Your task to perform on an android device: Open my contact list Image 0: 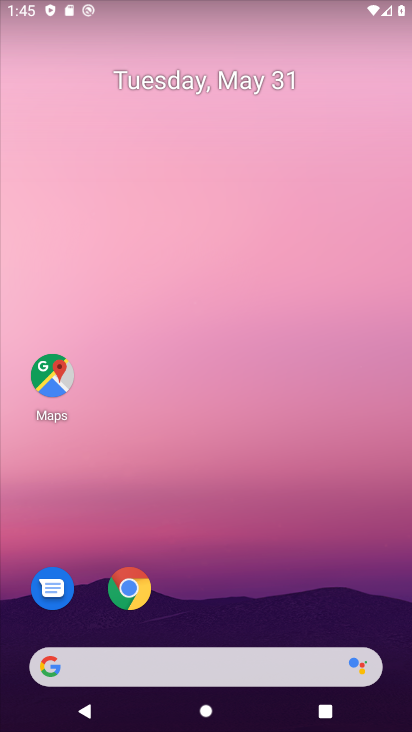
Step 0: drag from (159, 619) to (239, 176)
Your task to perform on an android device: Open my contact list Image 1: 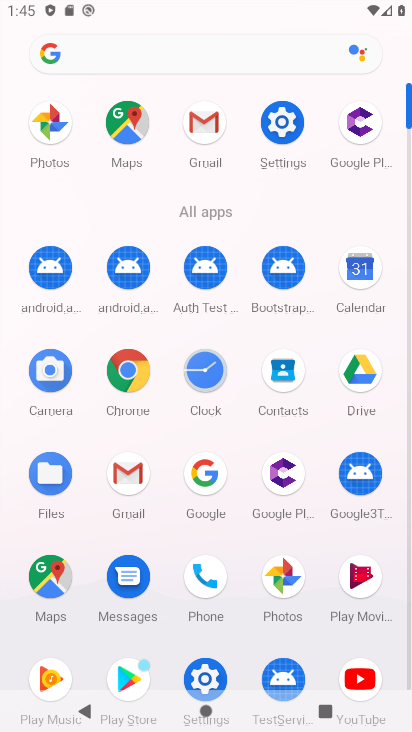
Step 1: click (274, 371)
Your task to perform on an android device: Open my contact list Image 2: 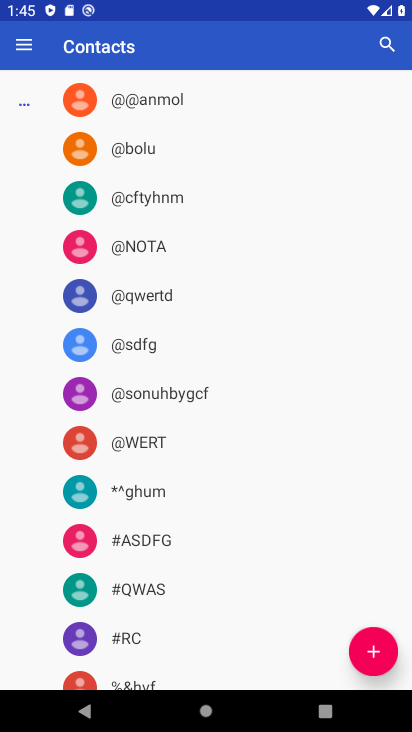
Step 2: task complete